Your task to perform on an android device: Open the stopwatch Image 0: 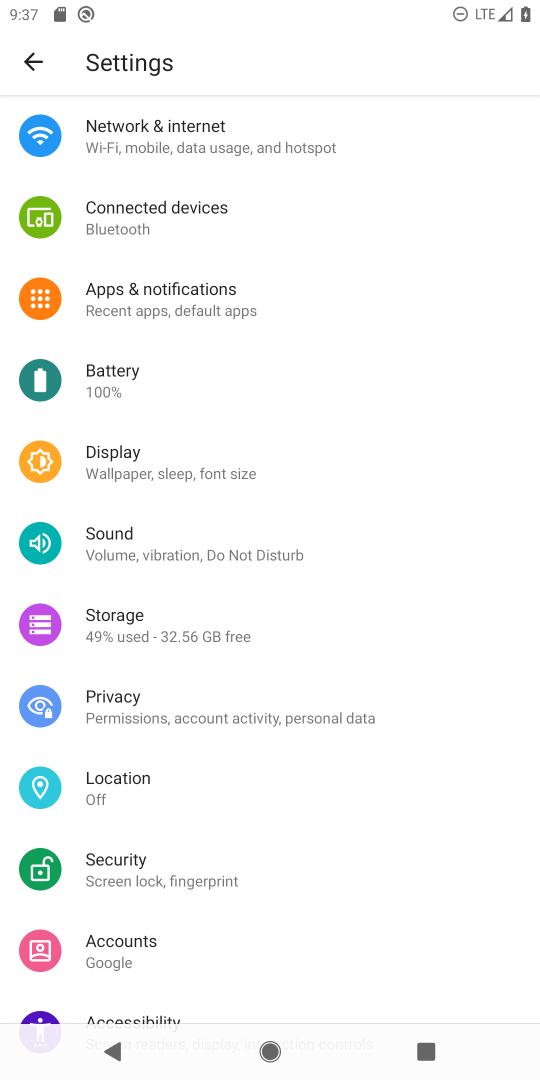
Step 0: press home button
Your task to perform on an android device: Open the stopwatch Image 1: 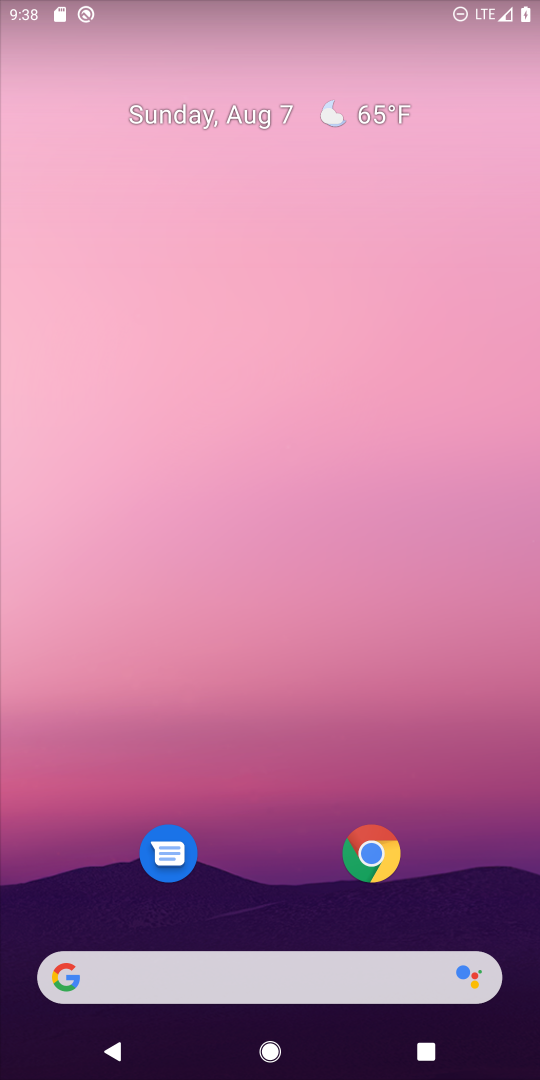
Step 1: drag from (251, 793) to (266, 338)
Your task to perform on an android device: Open the stopwatch Image 2: 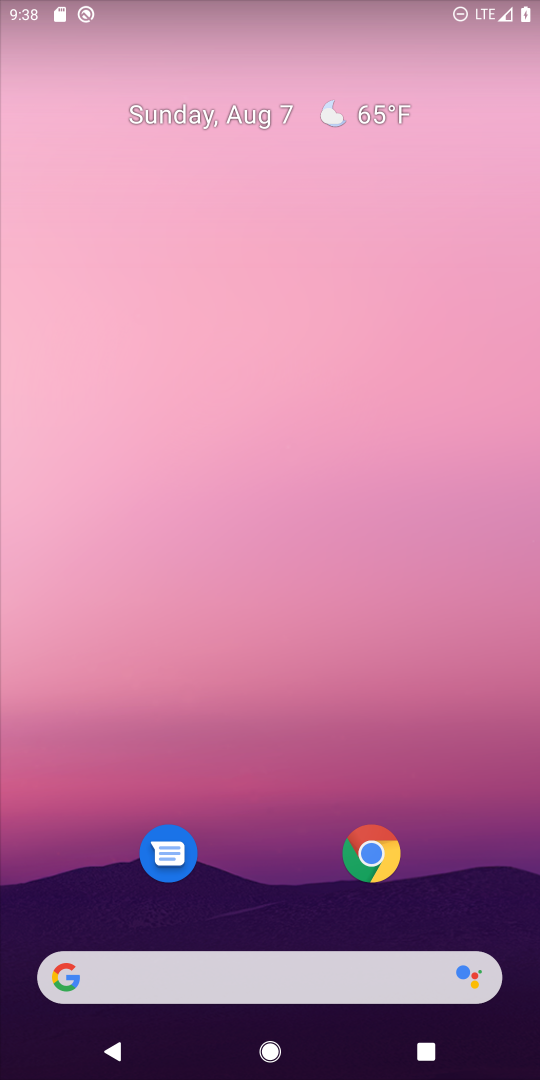
Step 2: drag from (255, 918) to (371, 186)
Your task to perform on an android device: Open the stopwatch Image 3: 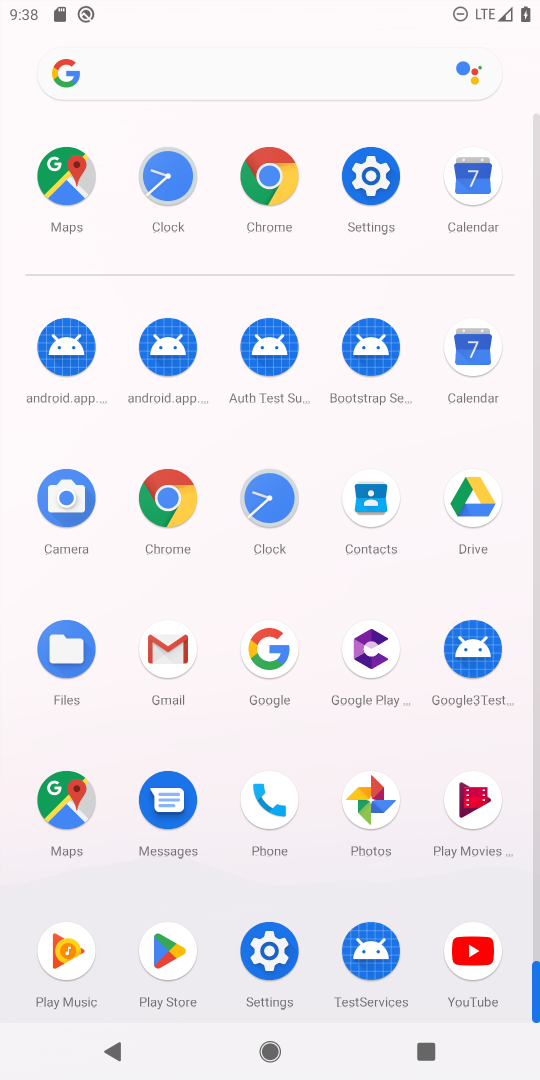
Step 3: click (259, 503)
Your task to perform on an android device: Open the stopwatch Image 4: 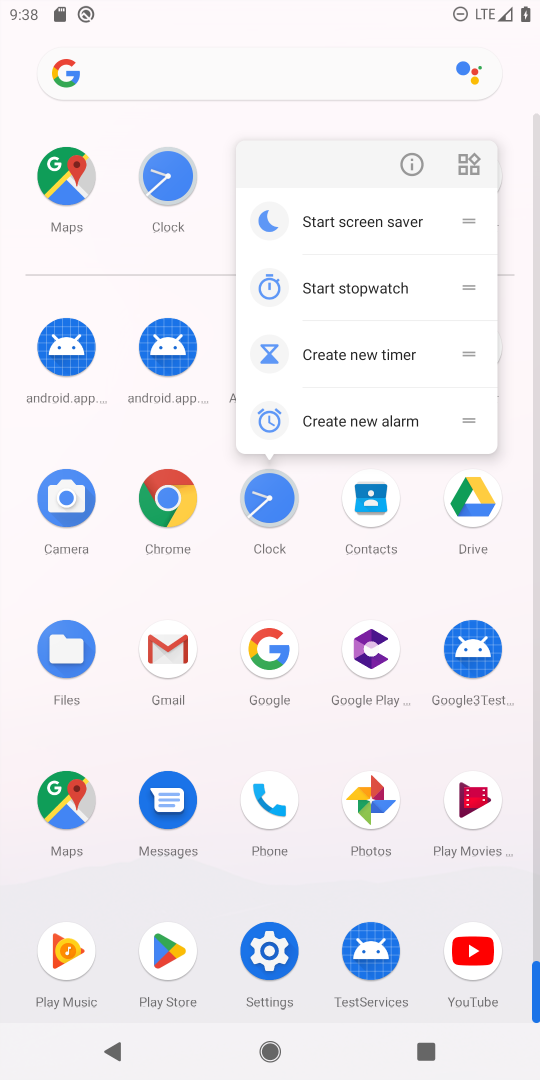
Step 4: click (259, 503)
Your task to perform on an android device: Open the stopwatch Image 5: 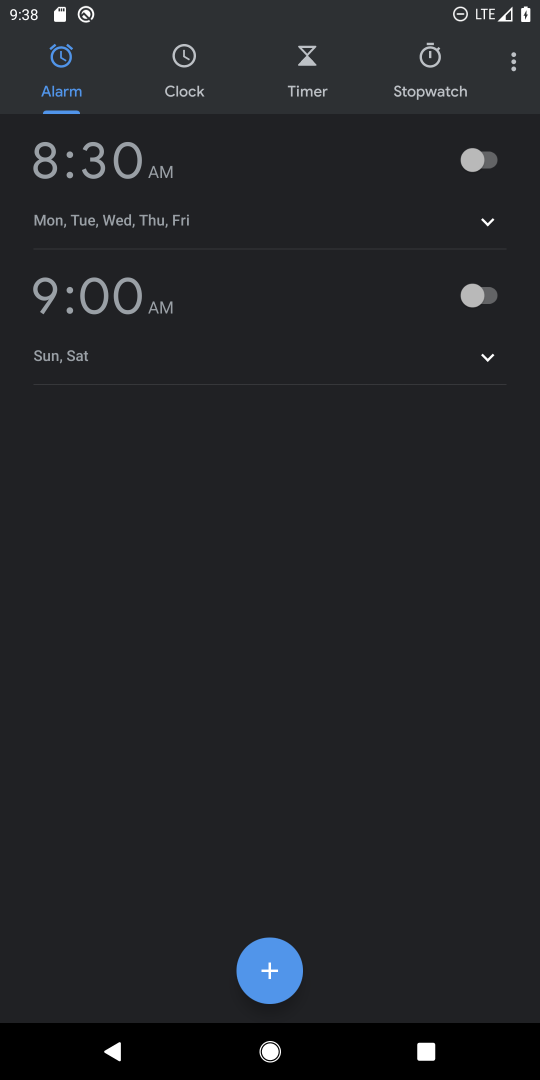
Step 5: click (410, 45)
Your task to perform on an android device: Open the stopwatch Image 6: 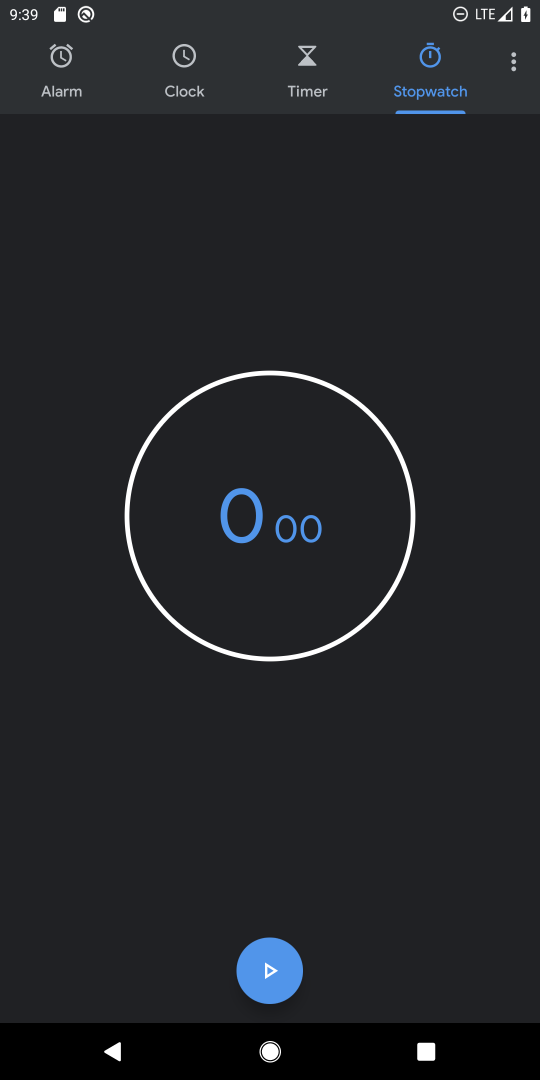
Step 6: task complete